Your task to perform on an android device: set the timer Image 0: 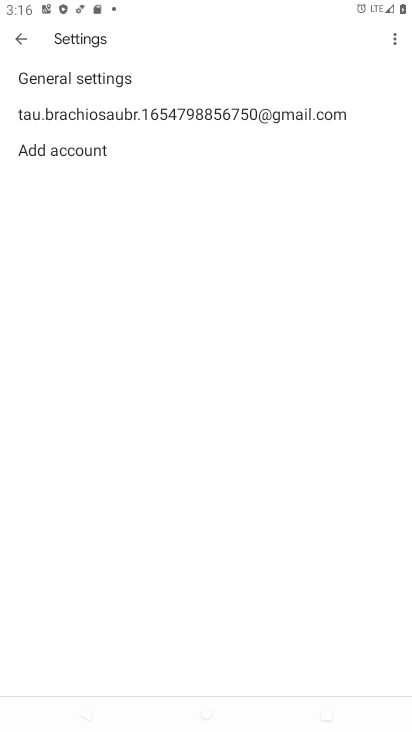
Step 0: press home button
Your task to perform on an android device: set the timer Image 1: 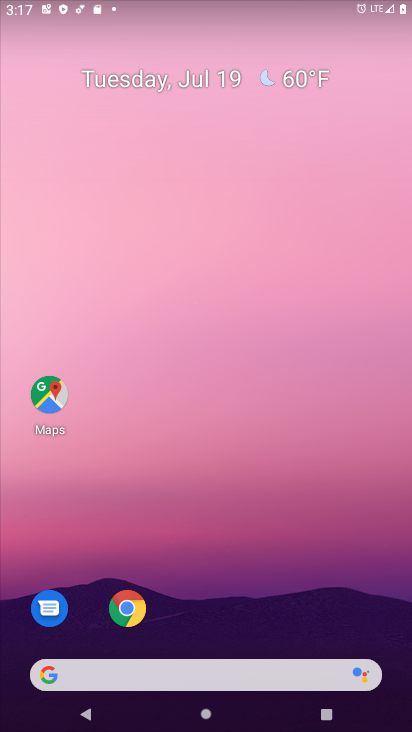
Step 1: drag from (317, 547) to (179, 9)
Your task to perform on an android device: set the timer Image 2: 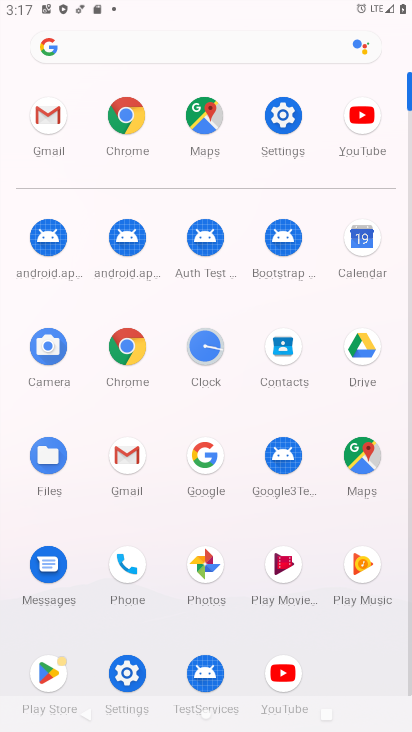
Step 2: click (205, 347)
Your task to perform on an android device: set the timer Image 3: 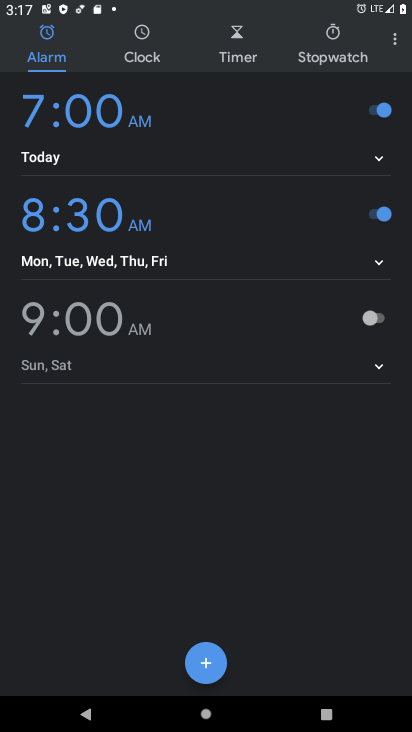
Step 3: click (246, 48)
Your task to perform on an android device: set the timer Image 4: 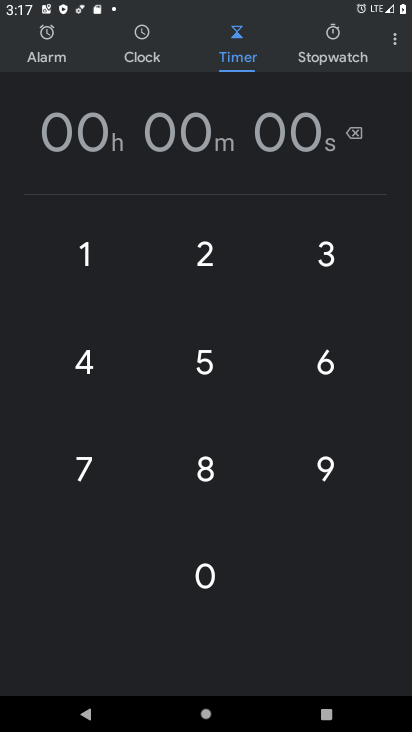
Step 4: click (218, 256)
Your task to perform on an android device: set the timer Image 5: 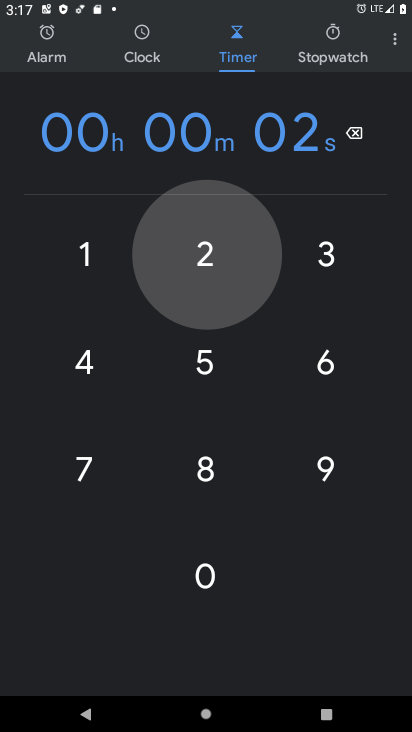
Step 5: click (219, 375)
Your task to perform on an android device: set the timer Image 6: 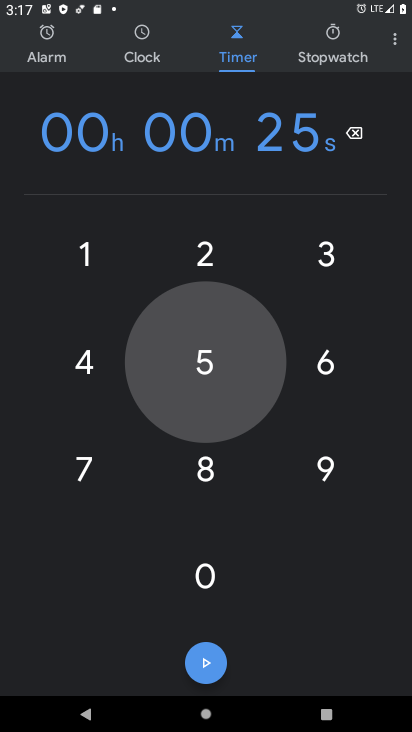
Step 6: click (219, 257)
Your task to perform on an android device: set the timer Image 7: 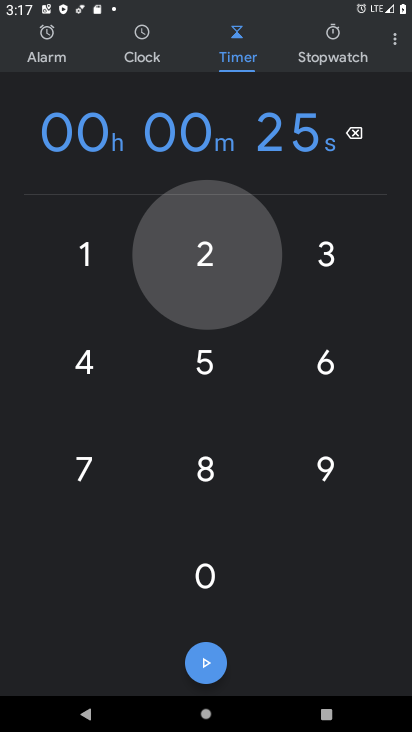
Step 7: click (214, 380)
Your task to perform on an android device: set the timer Image 8: 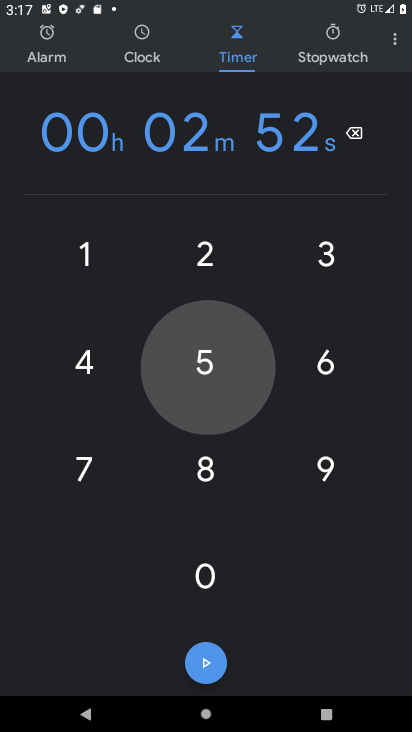
Step 8: drag from (211, 286) to (215, 373)
Your task to perform on an android device: set the timer Image 9: 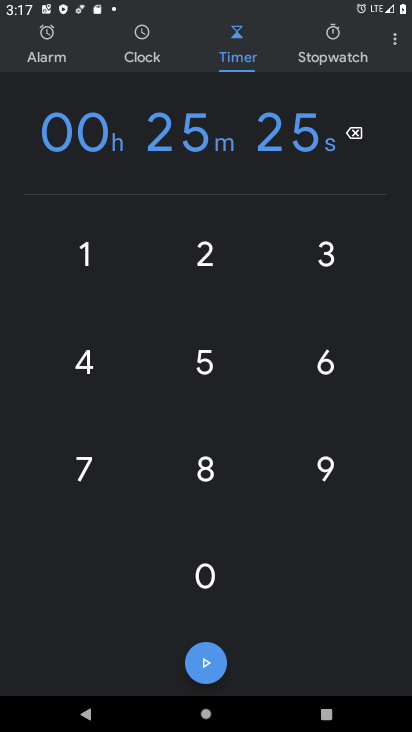
Step 9: click (197, 308)
Your task to perform on an android device: set the timer Image 10: 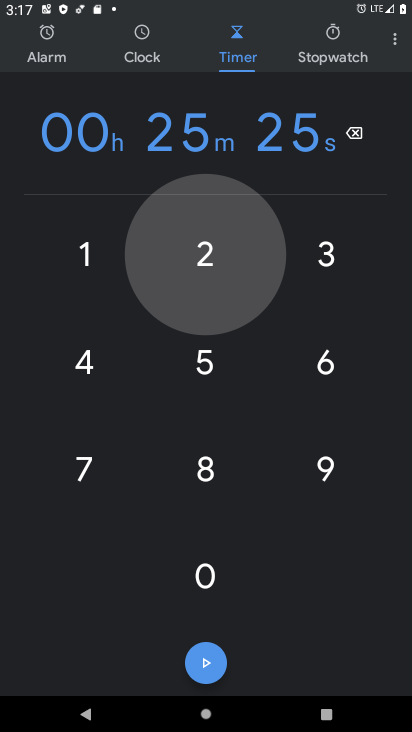
Step 10: click (221, 349)
Your task to perform on an android device: set the timer Image 11: 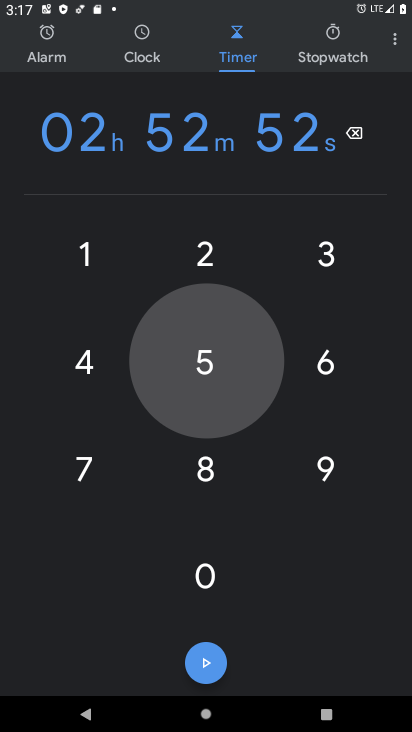
Step 11: click (213, 360)
Your task to perform on an android device: set the timer Image 12: 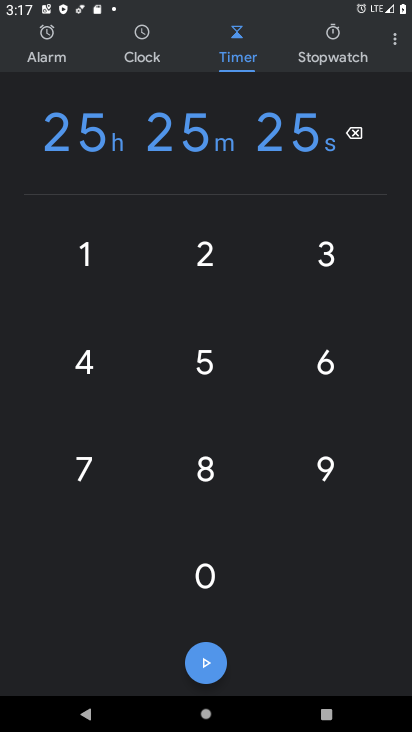
Step 12: click (211, 667)
Your task to perform on an android device: set the timer Image 13: 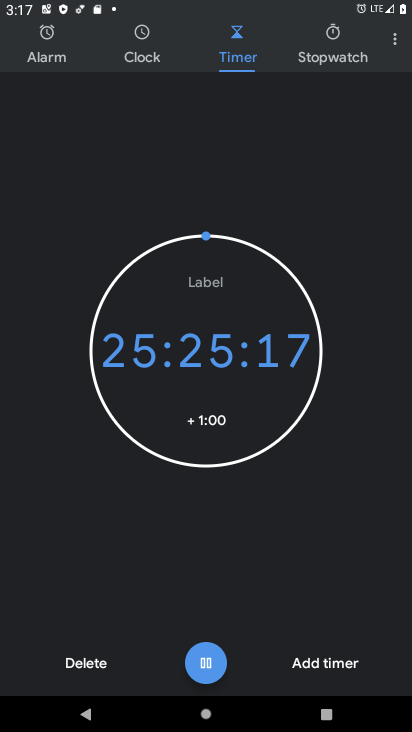
Step 13: task complete